Your task to perform on an android device: change alarm snooze length Image 0: 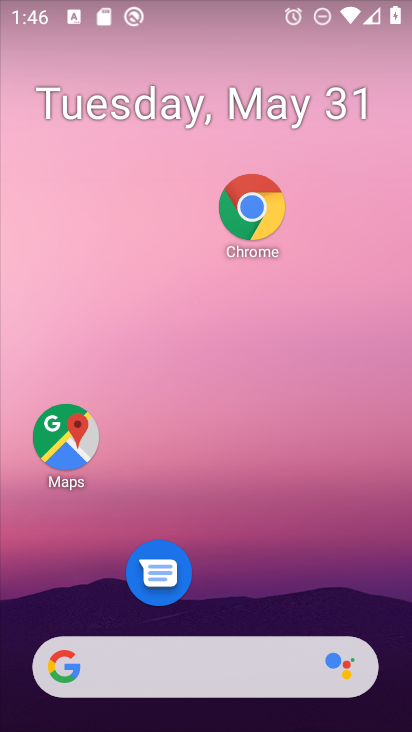
Step 0: drag from (197, 650) to (204, 3)
Your task to perform on an android device: change alarm snooze length Image 1: 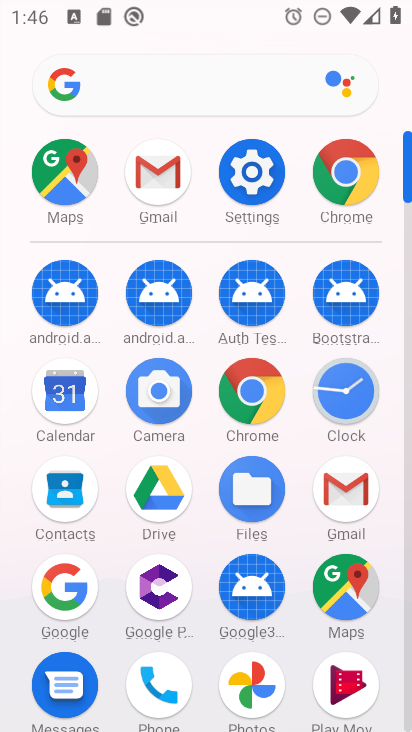
Step 1: click (356, 392)
Your task to perform on an android device: change alarm snooze length Image 2: 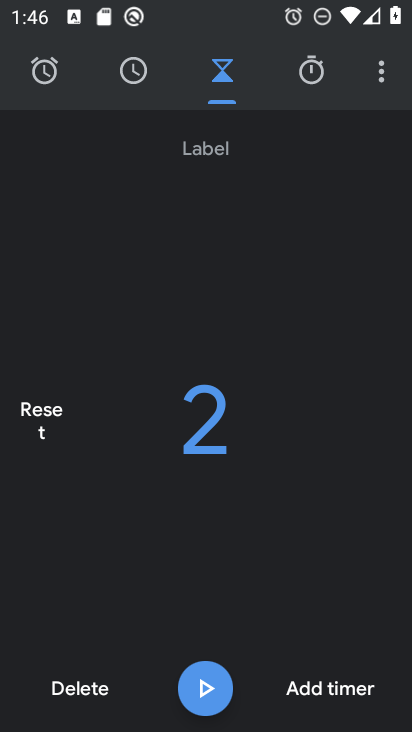
Step 2: click (375, 69)
Your task to perform on an android device: change alarm snooze length Image 3: 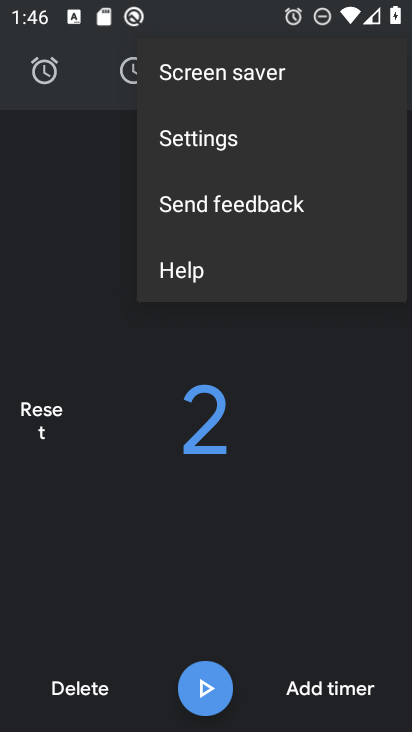
Step 3: click (232, 151)
Your task to perform on an android device: change alarm snooze length Image 4: 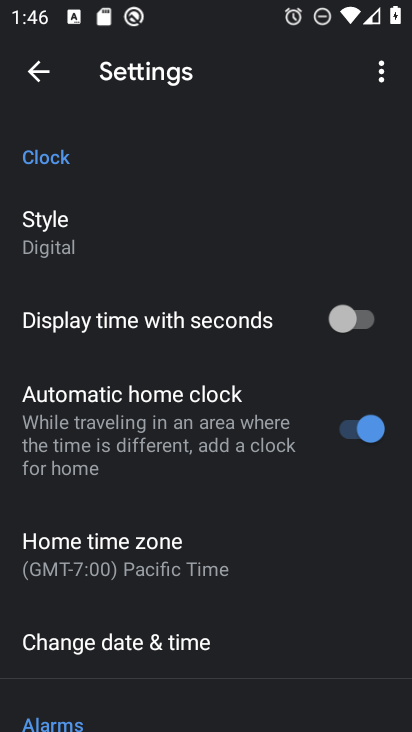
Step 4: drag from (165, 593) to (203, 159)
Your task to perform on an android device: change alarm snooze length Image 5: 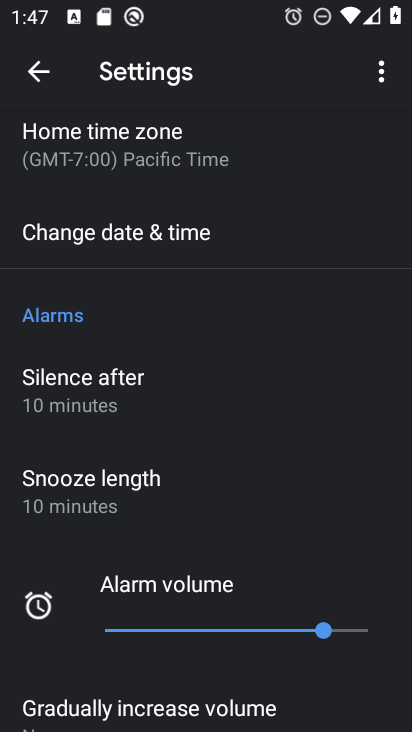
Step 5: click (146, 490)
Your task to perform on an android device: change alarm snooze length Image 6: 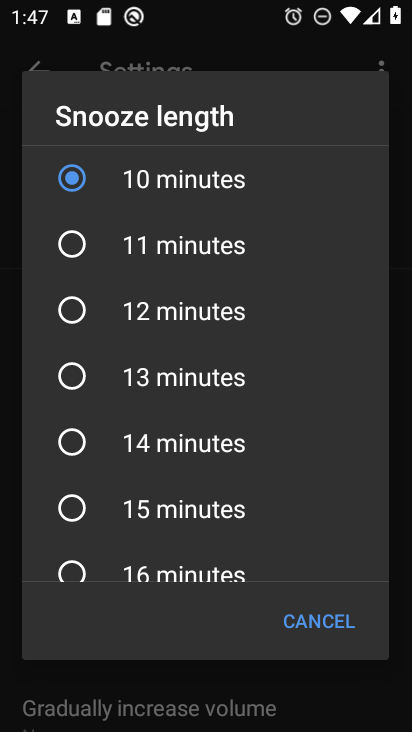
Step 6: click (69, 318)
Your task to perform on an android device: change alarm snooze length Image 7: 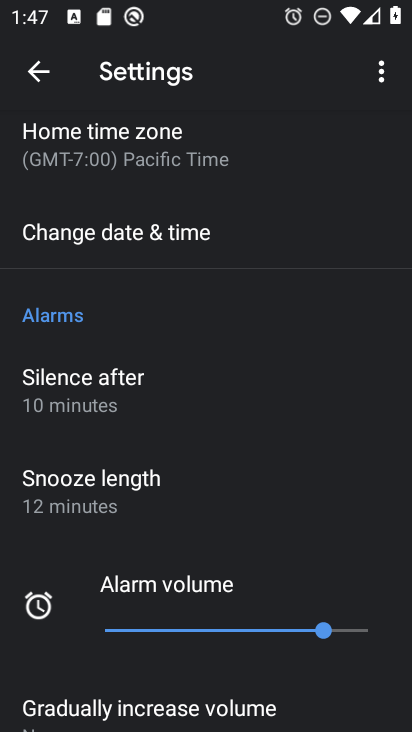
Step 7: task complete